Your task to perform on an android device: turn off picture-in-picture Image 0: 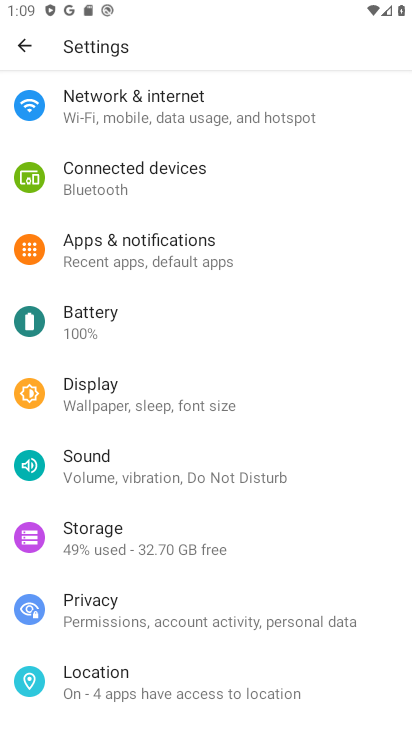
Step 0: click (139, 246)
Your task to perform on an android device: turn off picture-in-picture Image 1: 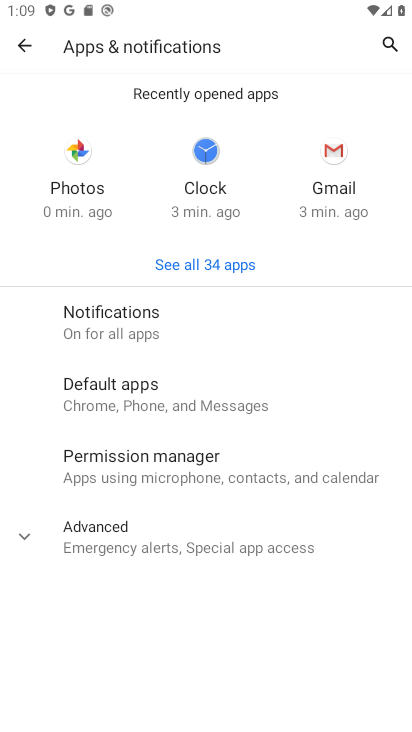
Step 1: click (121, 304)
Your task to perform on an android device: turn off picture-in-picture Image 2: 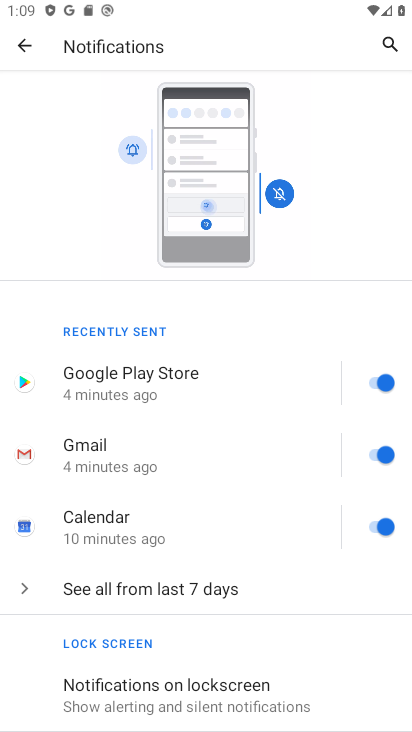
Step 2: drag from (310, 638) to (278, 302)
Your task to perform on an android device: turn off picture-in-picture Image 3: 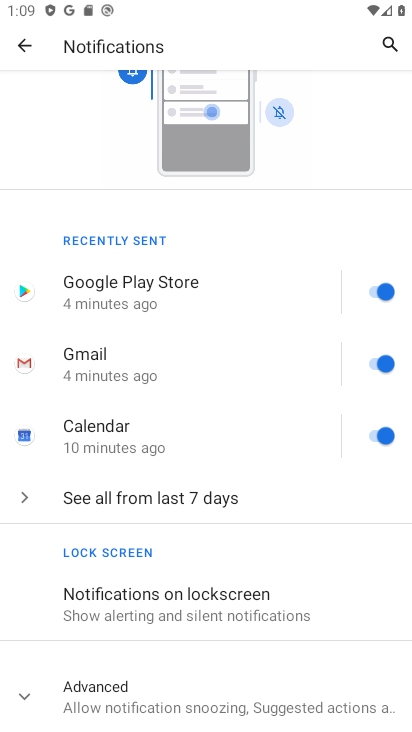
Step 3: drag from (221, 614) to (195, 328)
Your task to perform on an android device: turn off picture-in-picture Image 4: 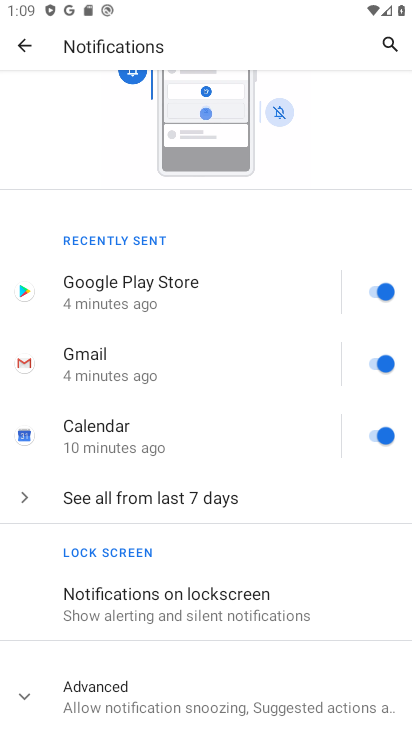
Step 4: click (24, 703)
Your task to perform on an android device: turn off picture-in-picture Image 5: 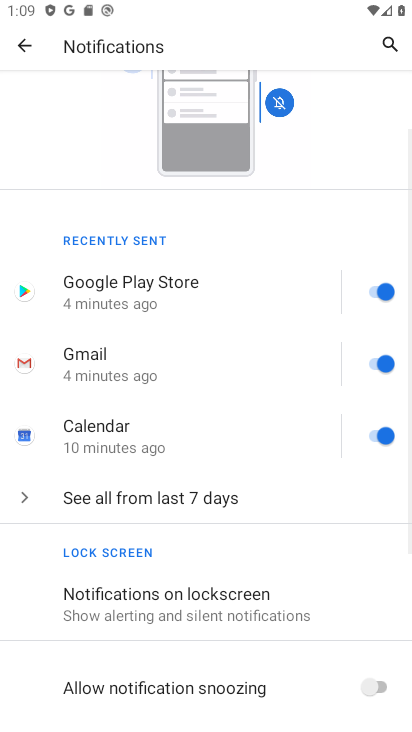
Step 5: drag from (154, 660) to (130, 339)
Your task to perform on an android device: turn off picture-in-picture Image 6: 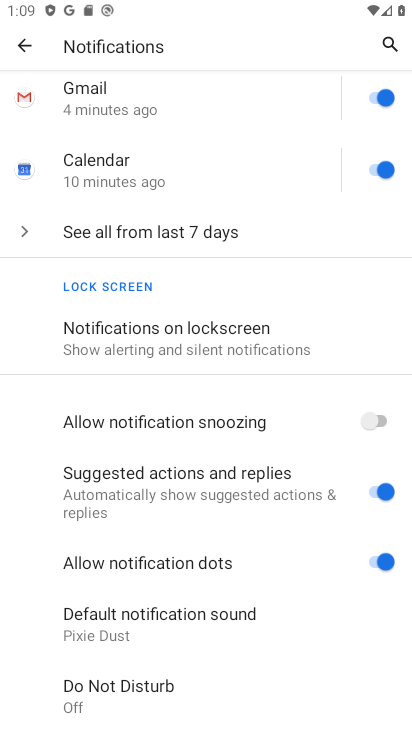
Step 6: drag from (177, 549) to (120, 266)
Your task to perform on an android device: turn off picture-in-picture Image 7: 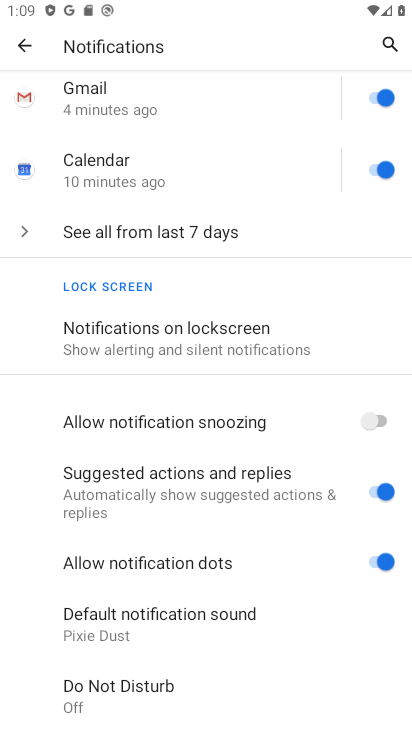
Step 7: click (21, 39)
Your task to perform on an android device: turn off picture-in-picture Image 8: 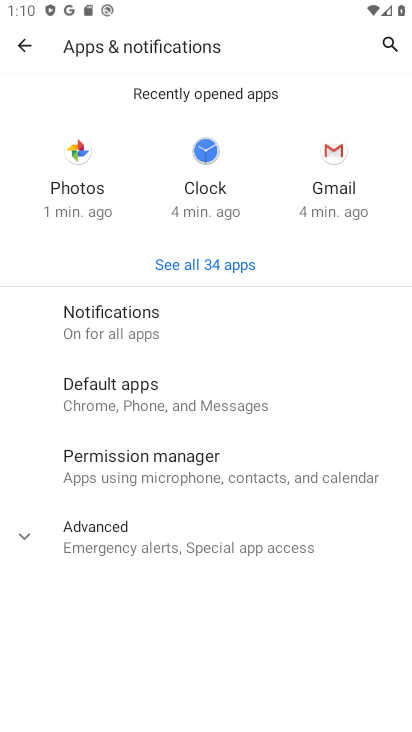
Step 8: click (89, 539)
Your task to perform on an android device: turn off picture-in-picture Image 9: 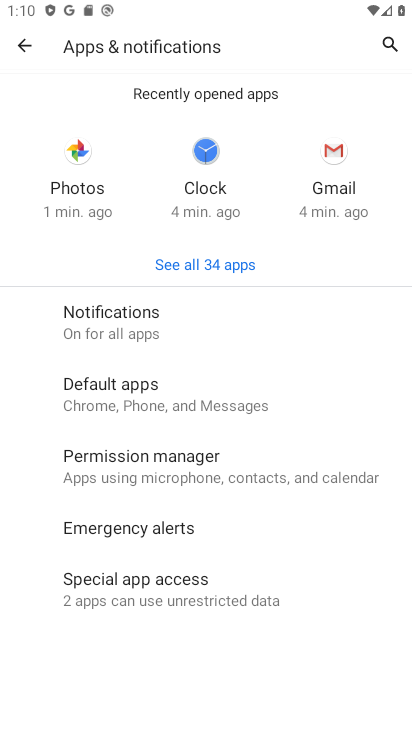
Step 9: drag from (263, 557) to (220, 308)
Your task to perform on an android device: turn off picture-in-picture Image 10: 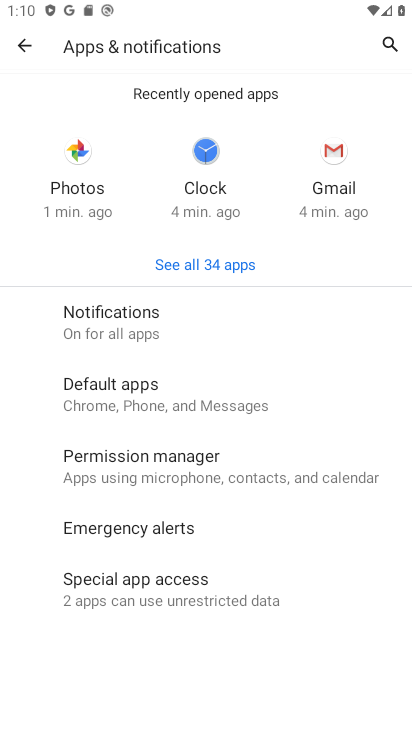
Step 10: click (126, 590)
Your task to perform on an android device: turn off picture-in-picture Image 11: 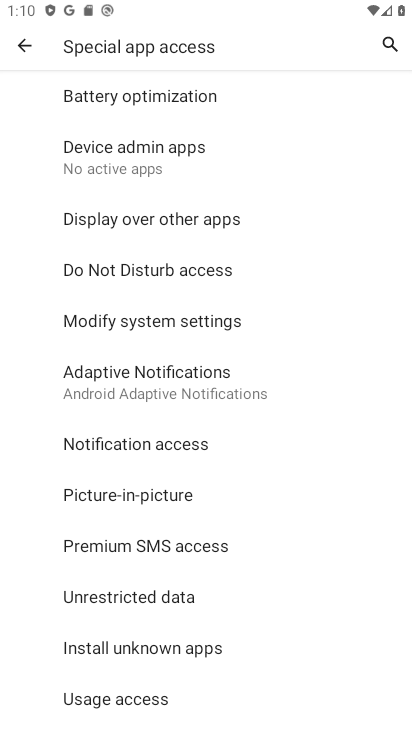
Step 11: click (118, 490)
Your task to perform on an android device: turn off picture-in-picture Image 12: 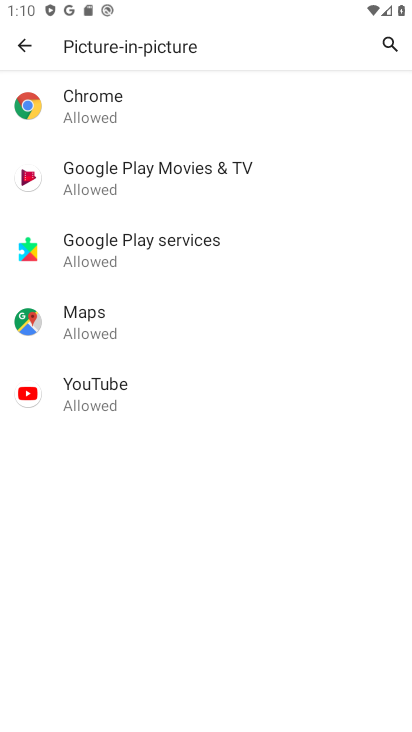
Step 12: click (104, 100)
Your task to perform on an android device: turn off picture-in-picture Image 13: 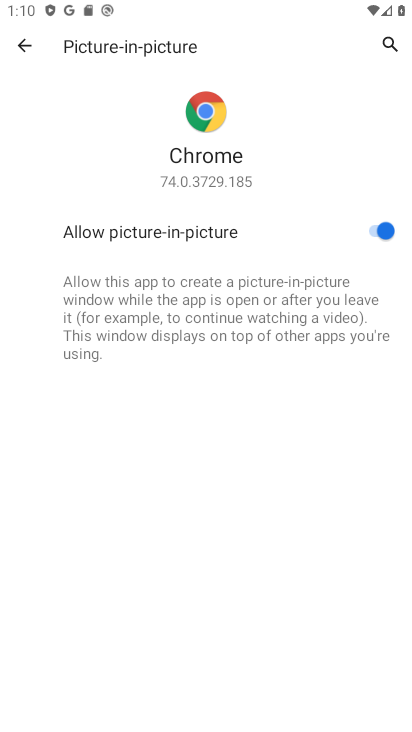
Step 13: click (381, 226)
Your task to perform on an android device: turn off picture-in-picture Image 14: 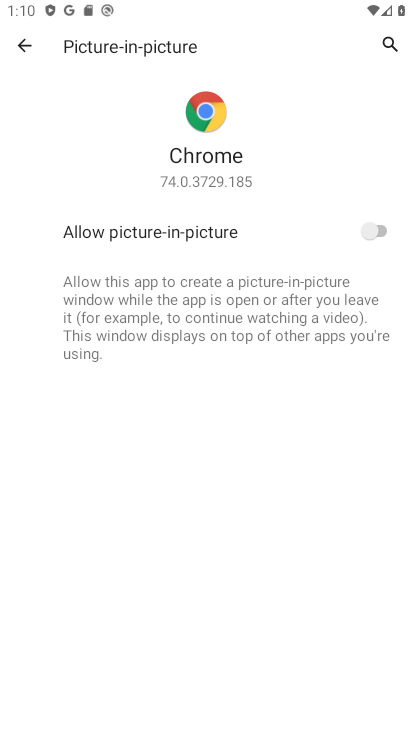
Step 14: click (18, 36)
Your task to perform on an android device: turn off picture-in-picture Image 15: 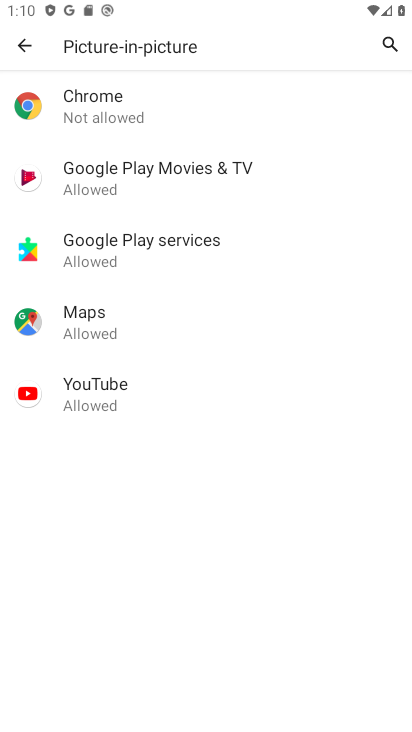
Step 15: click (107, 179)
Your task to perform on an android device: turn off picture-in-picture Image 16: 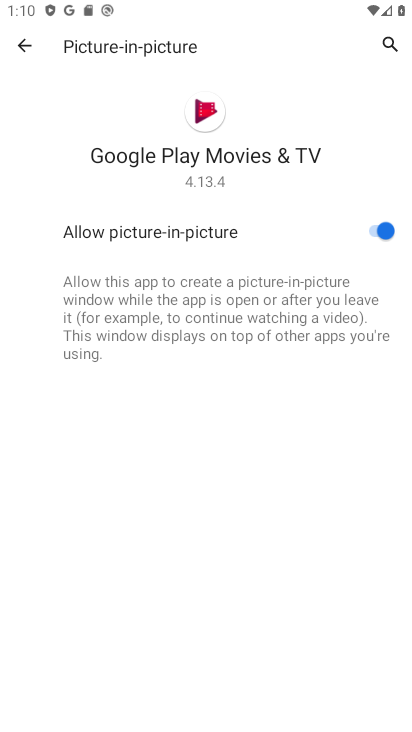
Step 16: click (385, 227)
Your task to perform on an android device: turn off picture-in-picture Image 17: 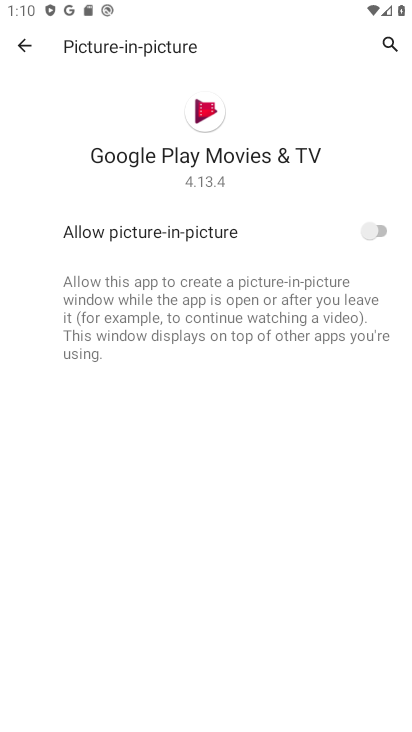
Step 17: click (15, 43)
Your task to perform on an android device: turn off picture-in-picture Image 18: 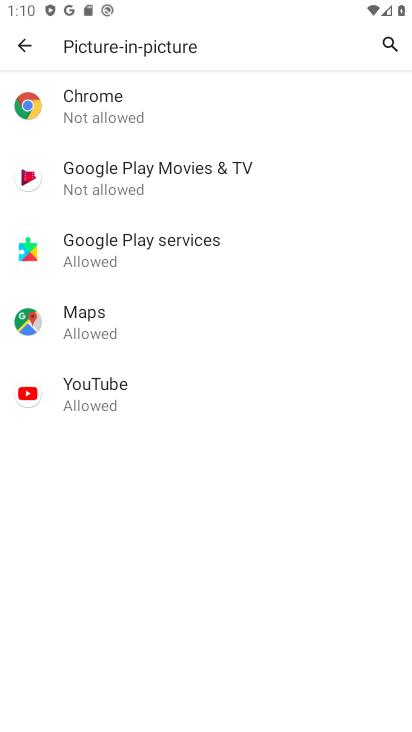
Step 18: click (88, 226)
Your task to perform on an android device: turn off picture-in-picture Image 19: 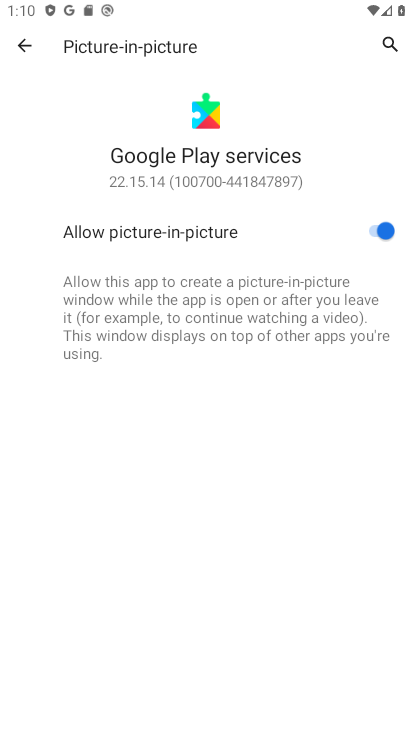
Step 19: click (377, 231)
Your task to perform on an android device: turn off picture-in-picture Image 20: 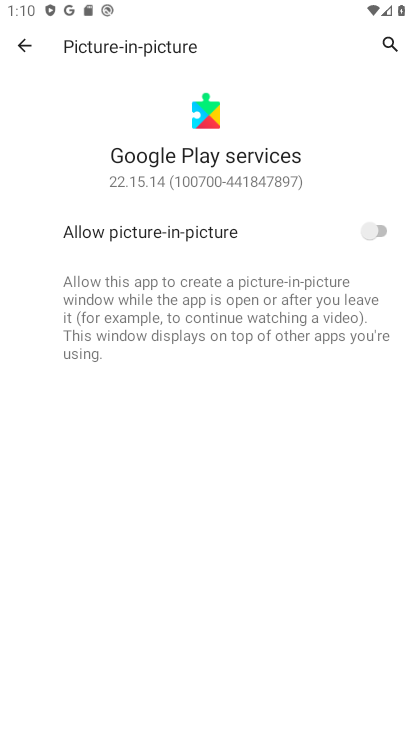
Step 20: click (23, 47)
Your task to perform on an android device: turn off picture-in-picture Image 21: 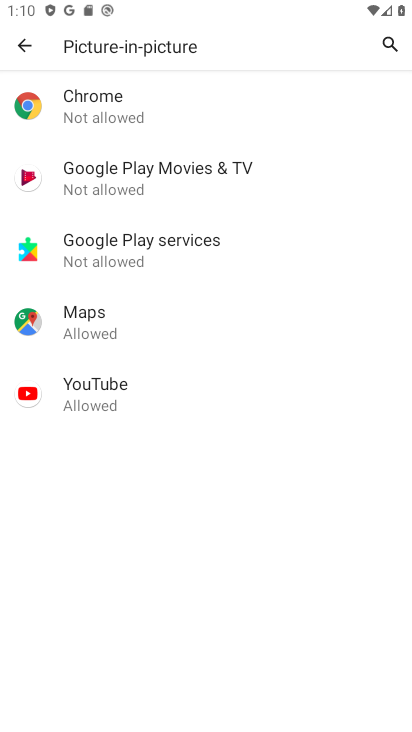
Step 21: click (87, 316)
Your task to perform on an android device: turn off picture-in-picture Image 22: 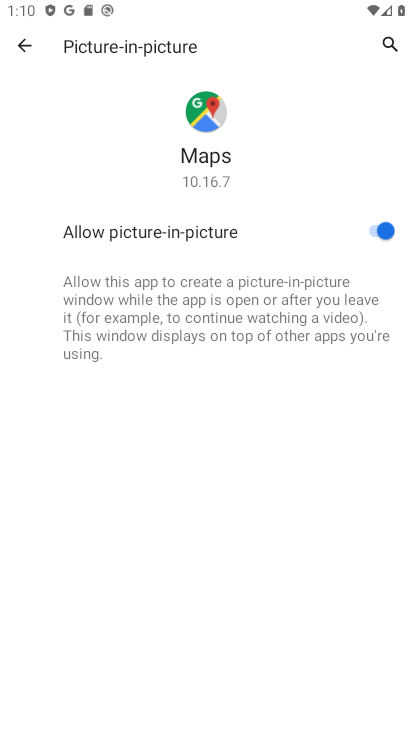
Step 22: click (379, 223)
Your task to perform on an android device: turn off picture-in-picture Image 23: 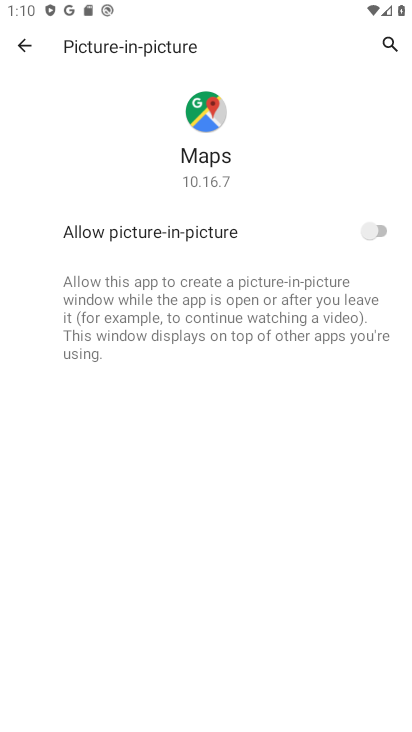
Step 23: click (19, 41)
Your task to perform on an android device: turn off picture-in-picture Image 24: 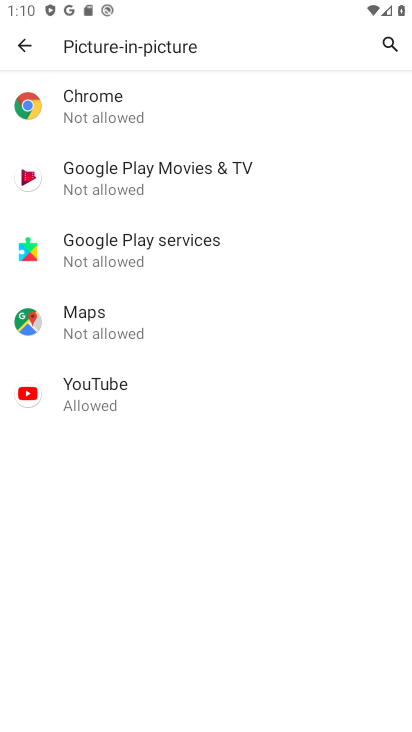
Step 24: click (90, 379)
Your task to perform on an android device: turn off picture-in-picture Image 25: 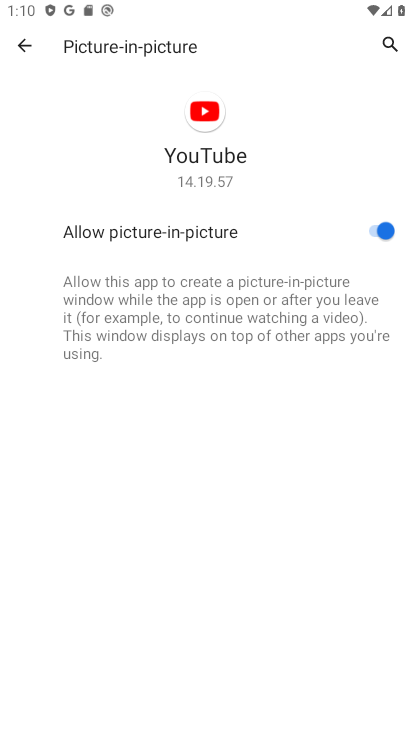
Step 25: click (387, 226)
Your task to perform on an android device: turn off picture-in-picture Image 26: 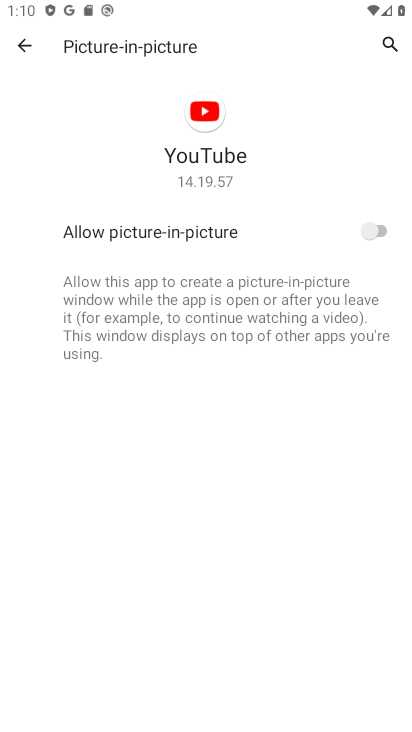
Step 26: task complete